Your task to perform on an android device: Go to Google maps Image 0: 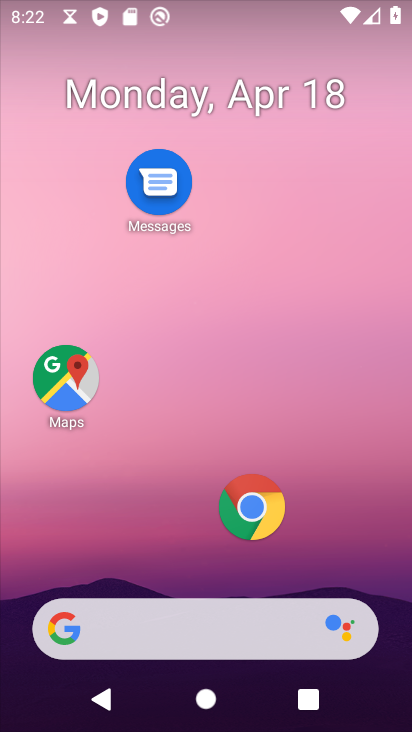
Step 0: click (72, 377)
Your task to perform on an android device: Go to Google maps Image 1: 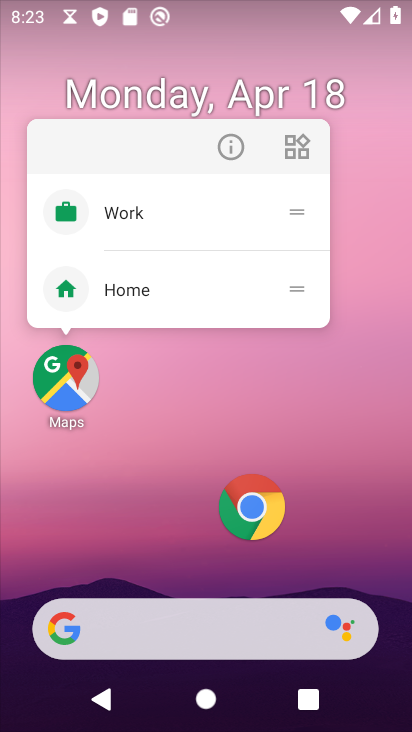
Step 1: click (76, 381)
Your task to perform on an android device: Go to Google maps Image 2: 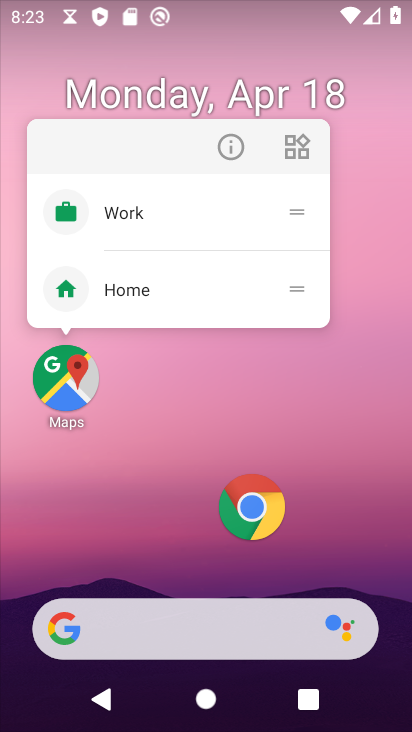
Step 2: click (62, 374)
Your task to perform on an android device: Go to Google maps Image 3: 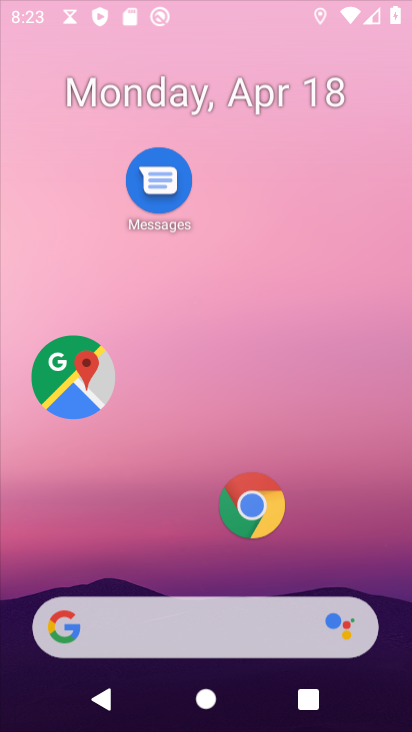
Step 3: click (65, 387)
Your task to perform on an android device: Go to Google maps Image 4: 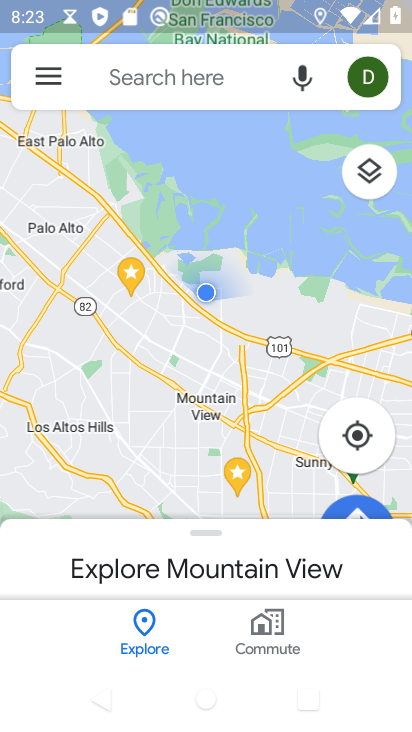
Step 4: task complete